Your task to perform on an android device: Open the Play Movies app and select the watchlist tab. Image 0: 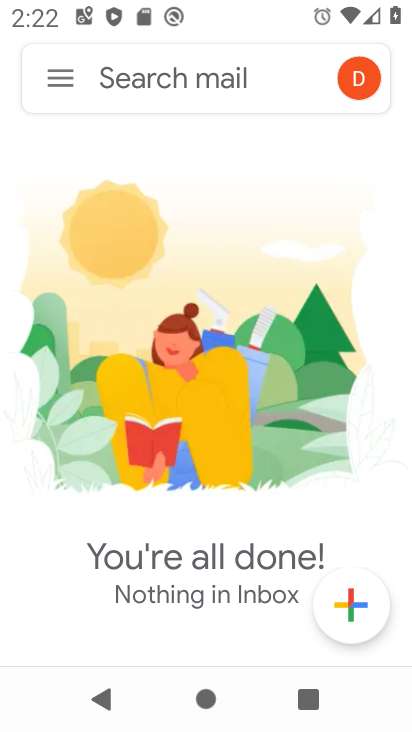
Step 0: press home button
Your task to perform on an android device: Open the Play Movies app and select the watchlist tab. Image 1: 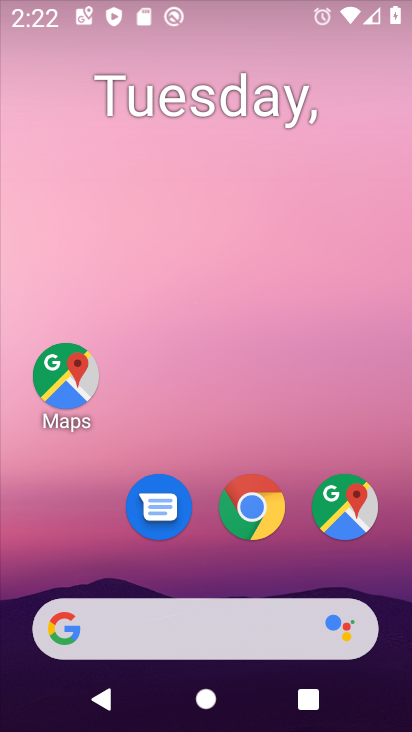
Step 1: drag from (281, 442) to (298, 254)
Your task to perform on an android device: Open the Play Movies app and select the watchlist tab. Image 2: 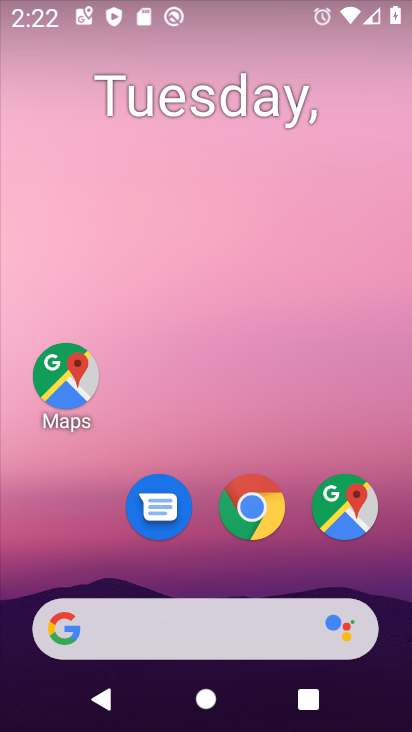
Step 2: drag from (234, 541) to (258, 167)
Your task to perform on an android device: Open the Play Movies app and select the watchlist tab. Image 3: 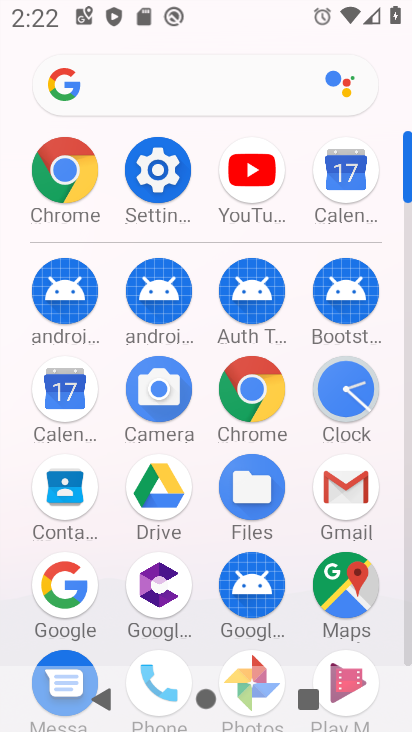
Step 3: drag from (283, 549) to (315, 340)
Your task to perform on an android device: Open the Play Movies app and select the watchlist tab. Image 4: 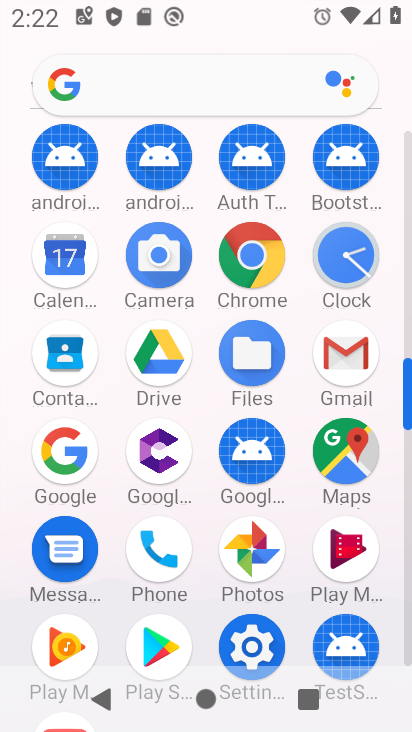
Step 4: click (331, 547)
Your task to perform on an android device: Open the Play Movies app and select the watchlist tab. Image 5: 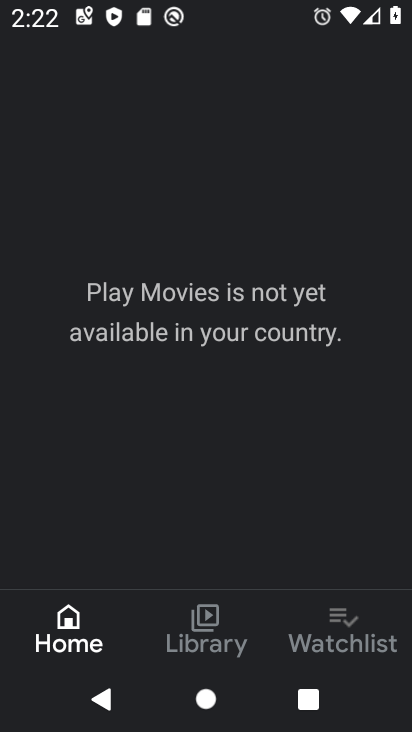
Step 5: click (361, 642)
Your task to perform on an android device: Open the Play Movies app and select the watchlist tab. Image 6: 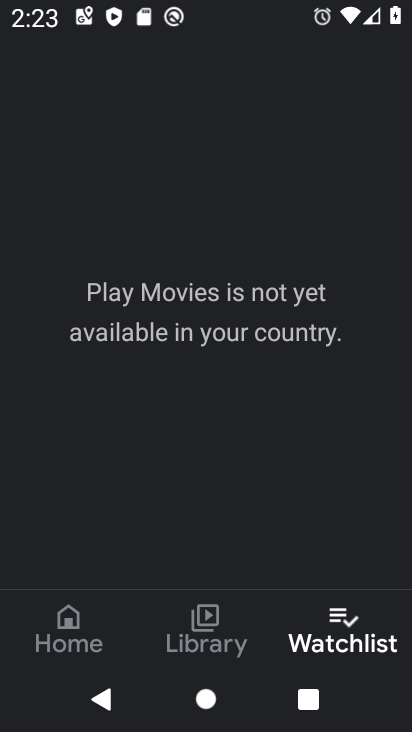
Step 6: task complete